Your task to perform on an android device: open wifi settings Image 0: 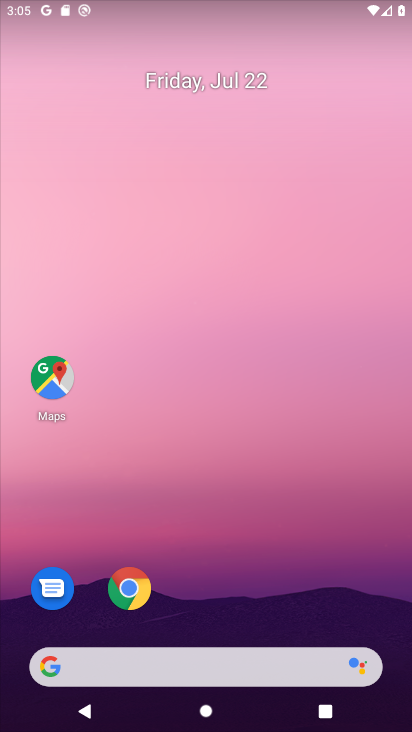
Step 0: drag from (185, 9) to (214, 421)
Your task to perform on an android device: open wifi settings Image 1: 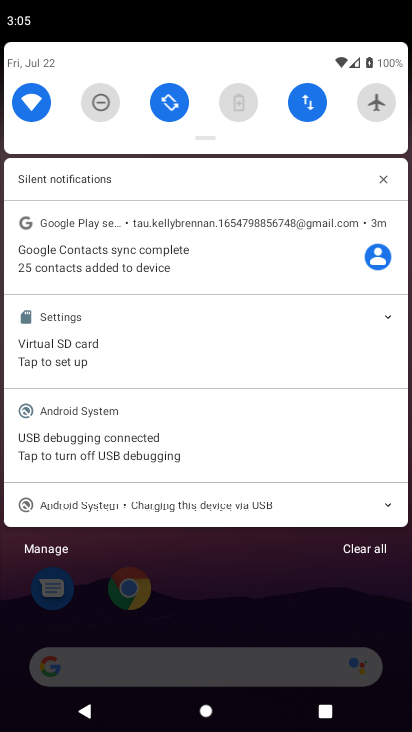
Step 1: click (27, 104)
Your task to perform on an android device: open wifi settings Image 2: 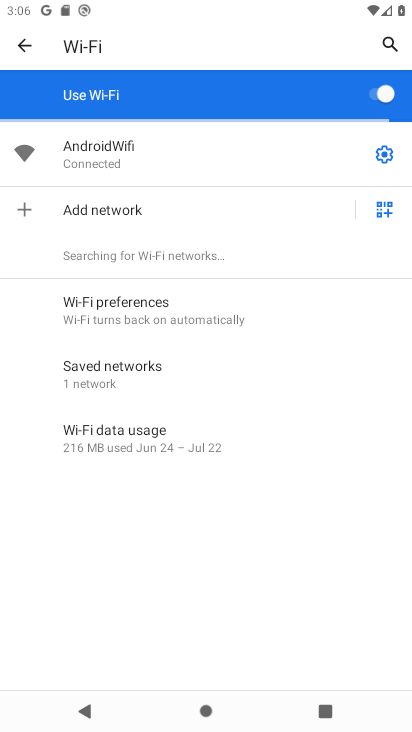
Step 2: task complete